Your task to perform on an android device: Open ESPN.com Image 0: 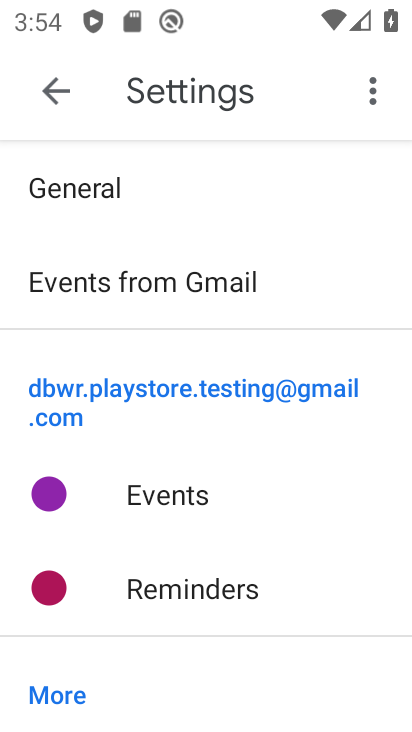
Step 0: press home button
Your task to perform on an android device: Open ESPN.com Image 1: 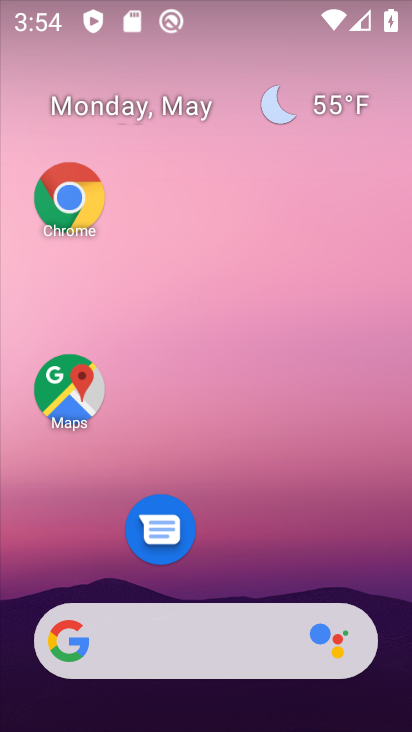
Step 1: drag from (127, 622) to (195, 251)
Your task to perform on an android device: Open ESPN.com Image 2: 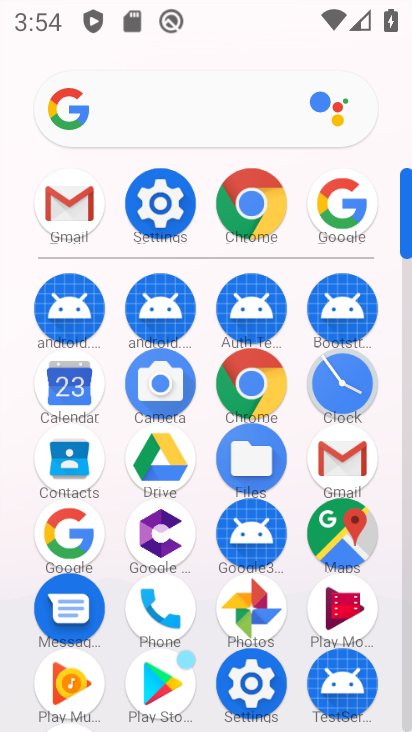
Step 2: click (251, 394)
Your task to perform on an android device: Open ESPN.com Image 3: 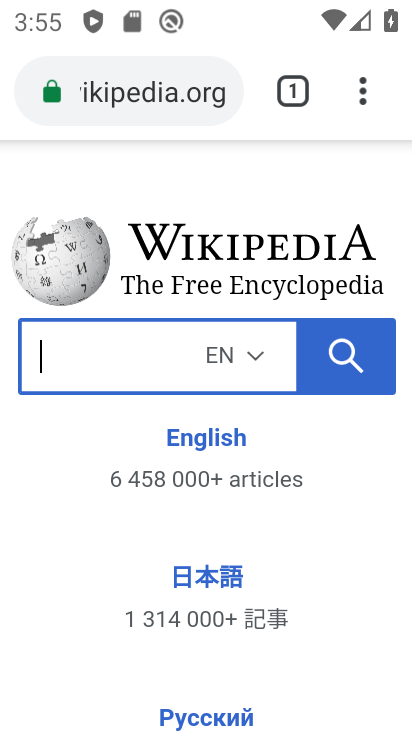
Step 3: click (202, 108)
Your task to perform on an android device: Open ESPN.com Image 4: 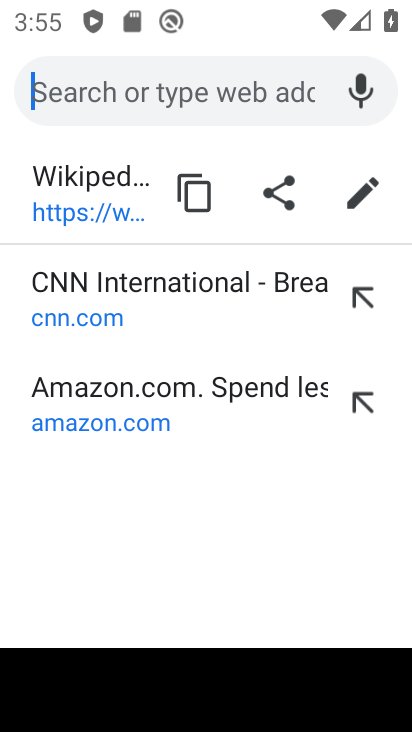
Step 4: type "espn"
Your task to perform on an android device: Open ESPN.com Image 5: 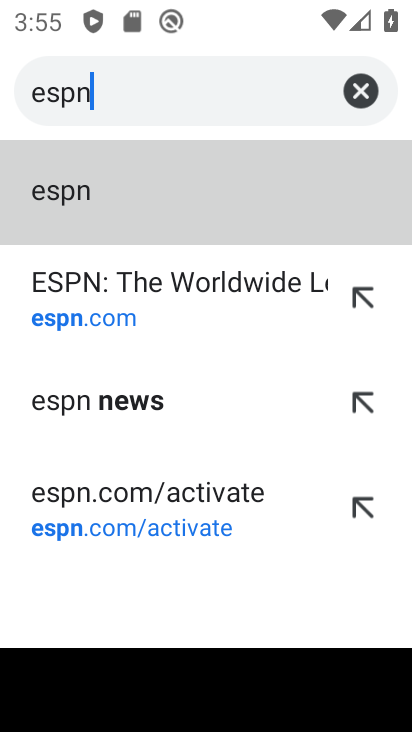
Step 5: click (164, 323)
Your task to perform on an android device: Open ESPN.com Image 6: 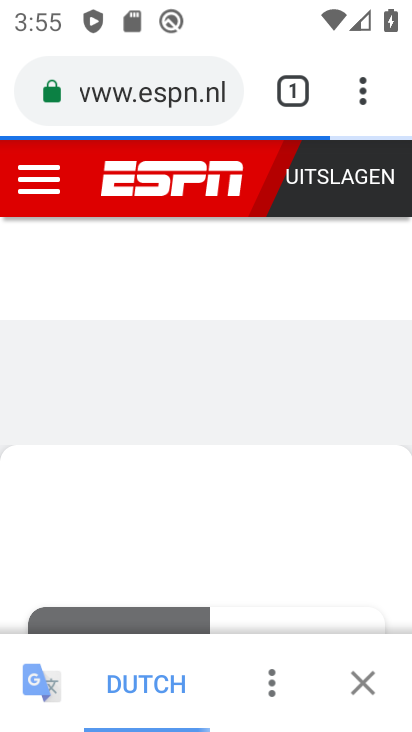
Step 6: task complete